Your task to perform on an android device: toggle show notifications on the lock screen Image 0: 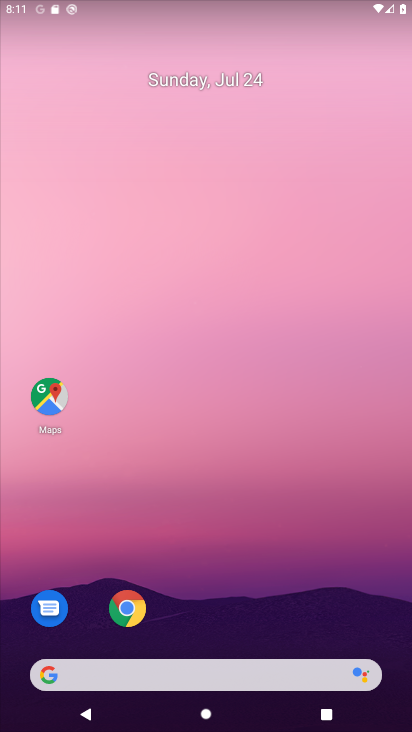
Step 0: drag from (169, 640) to (264, 79)
Your task to perform on an android device: toggle show notifications on the lock screen Image 1: 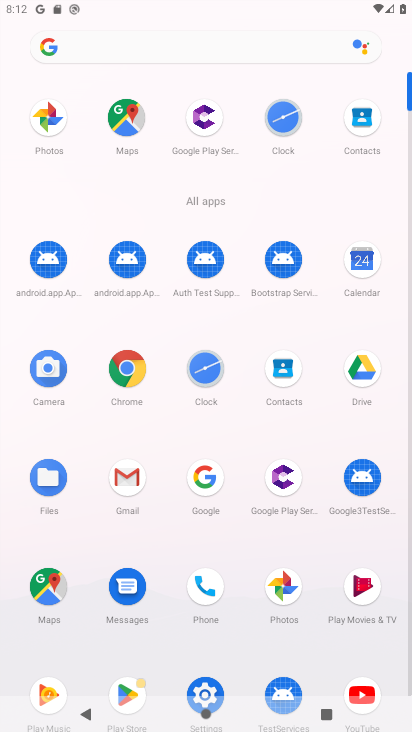
Step 1: click (209, 679)
Your task to perform on an android device: toggle show notifications on the lock screen Image 2: 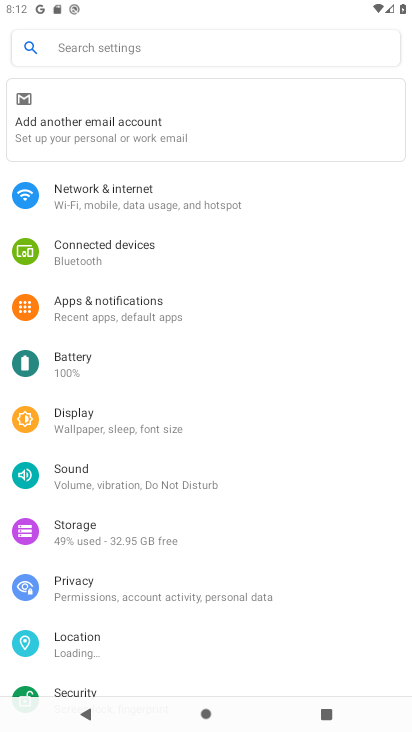
Step 2: click (180, 310)
Your task to perform on an android device: toggle show notifications on the lock screen Image 3: 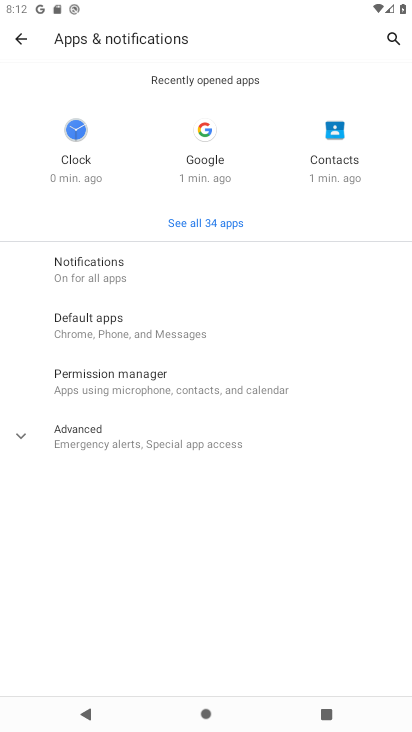
Step 3: click (173, 278)
Your task to perform on an android device: toggle show notifications on the lock screen Image 4: 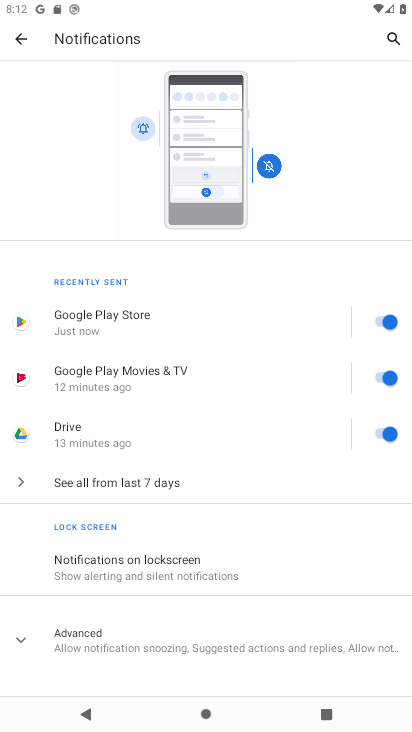
Step 4: click (109, 565)
Your task to perform on an android device: toggle show notifications on the lock screen Image 5: 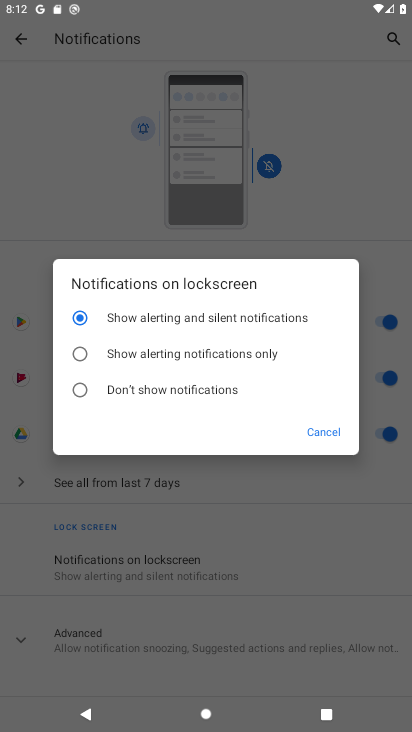
Step 5: task complete